Your task to perform on an android device: Open wifi settings Image 0: 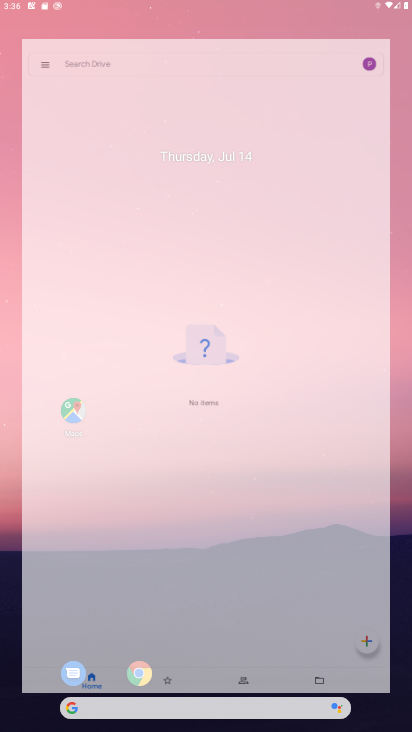
Step 0: press home button
Your task to perform on an android device: Open wifi settings Image 1: 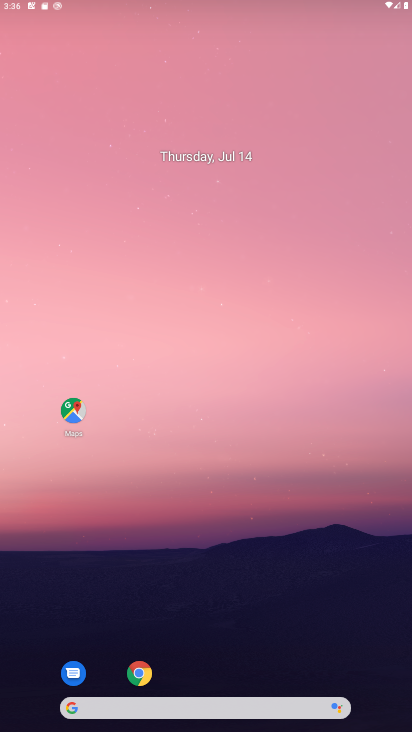
Step 1: press home button
Your task to perform on an android device: Open wifi settings Image 2: 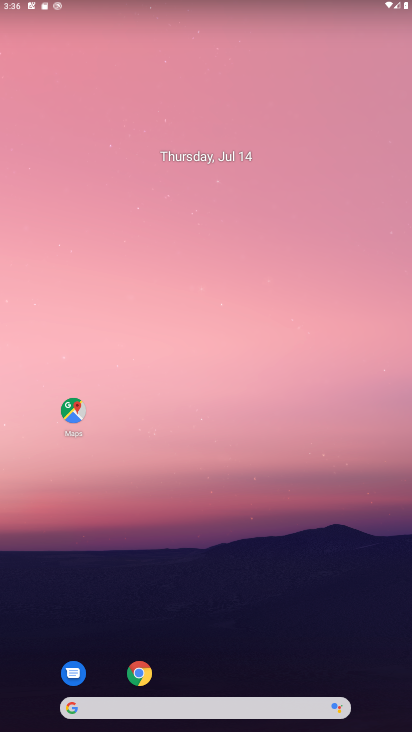
Step 2: drag from (222, 675) to (224, 85)
Your task to perform on an android device: Open wifi settings Image 3: 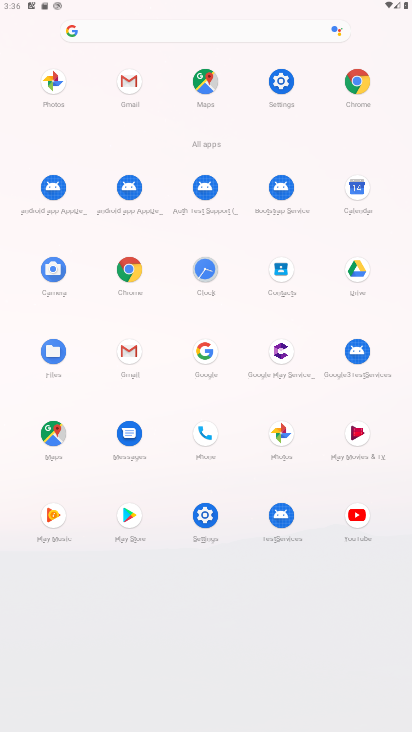
Step 3: drag from (126, 2) to (151, 628)
Your task to perform on an android device: Open wifi settings Image 4: 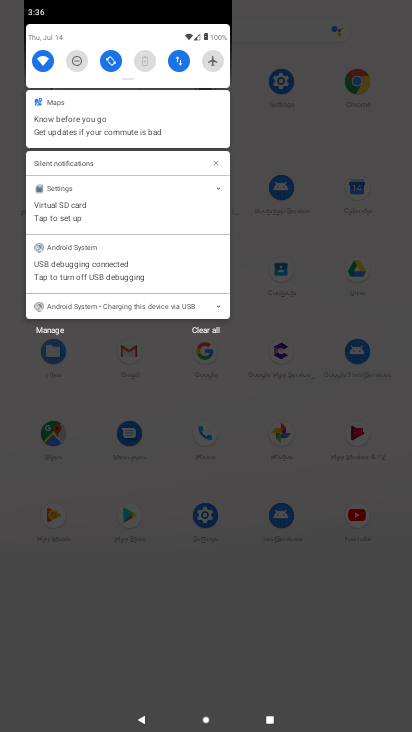
Step 4: click (42, 60)
Your task to perform on an android device: Open wifi settings Image 5: 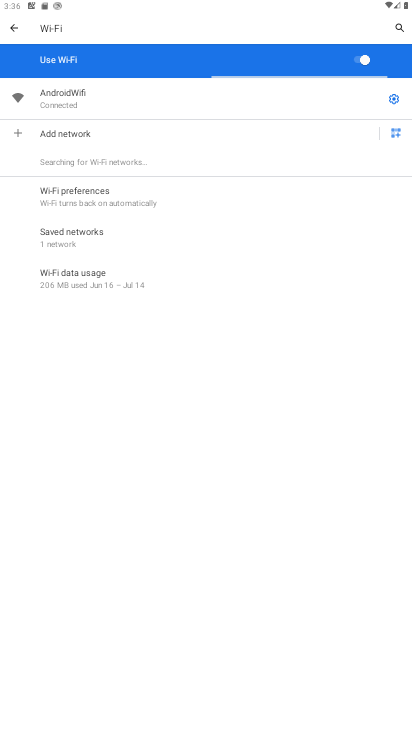
Step 5: task complete